Your task to perform on an android device: Go to calendar. Show me events next week Image 0: 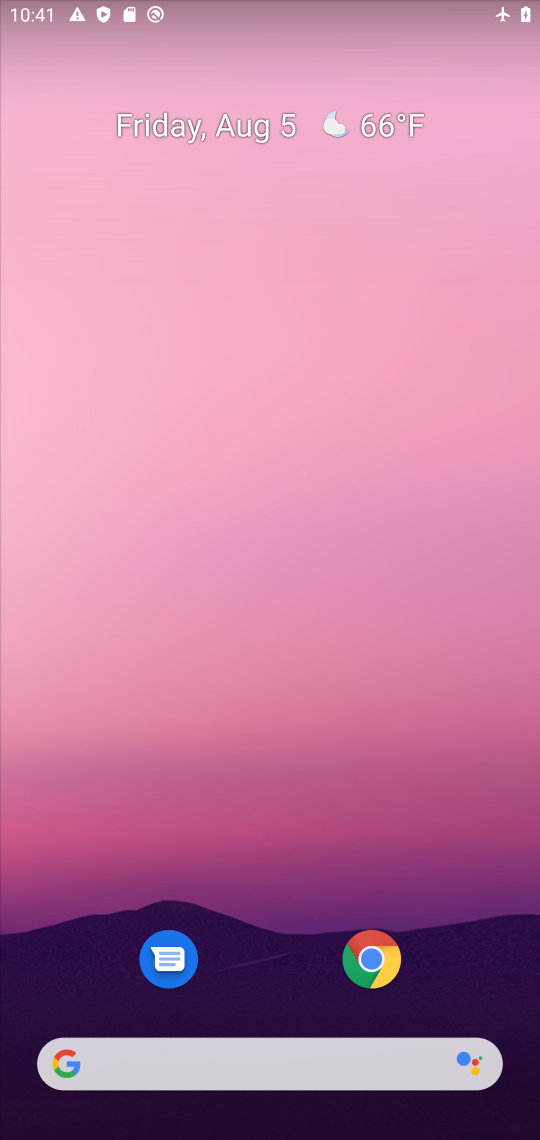
Step 0: drag from (268, 718) to (27, 365)
Your task to perform on an android device: Go to calendar. Show me events next week Image 1: 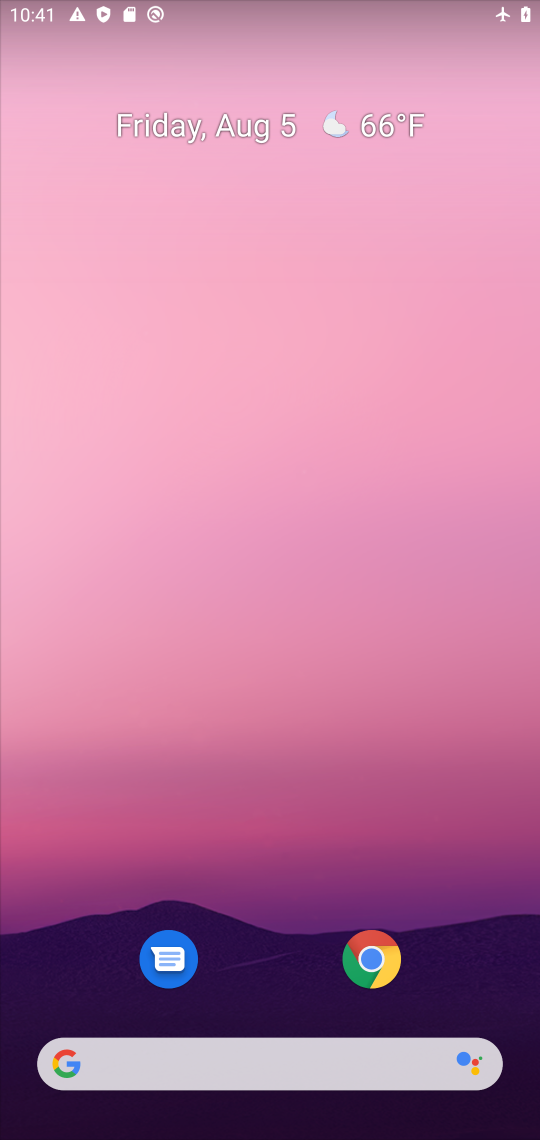
Step 1: drag from (232, 644) to (163, 44)
Your task to perform on an android device: Go to calendar. Show me events next week Image 2: 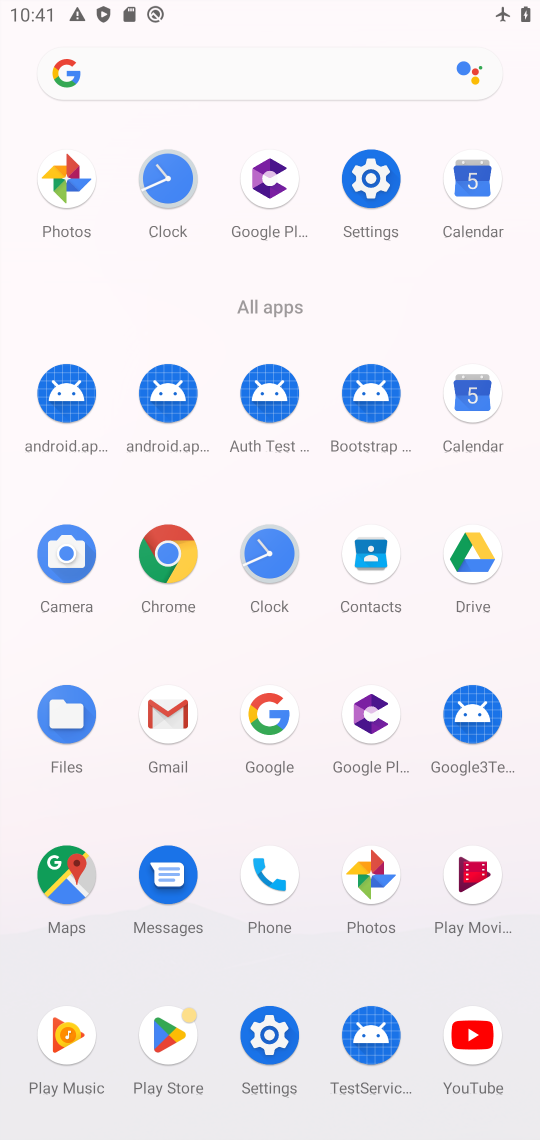
Step 2: click (479, 413)
Your task to perform on an android device: Go to calendar. Show me events next week Image 3: 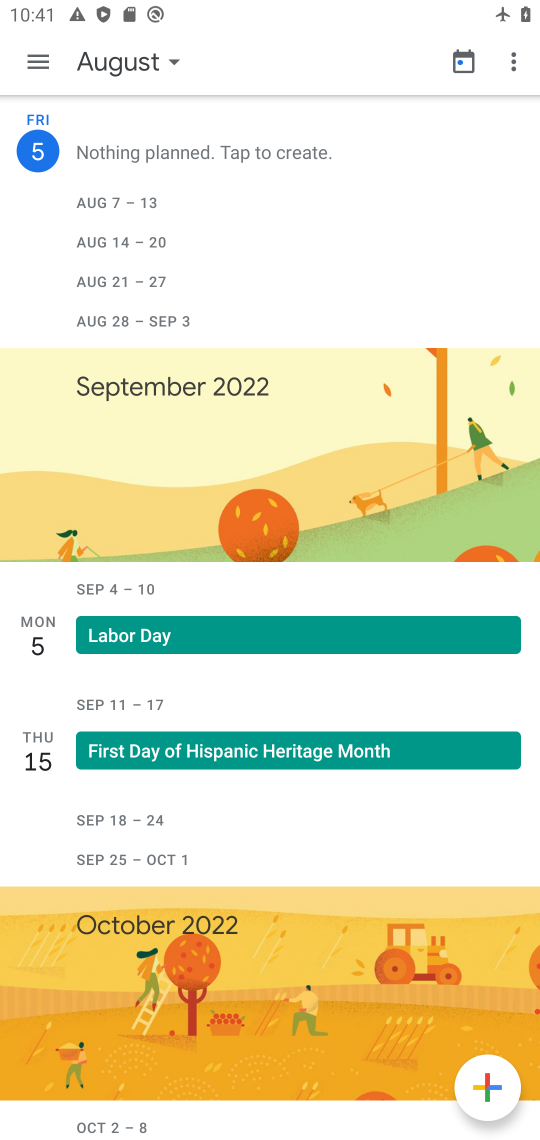
Step 3: click (48, 60)
Your task to perform on an android device: Go to calendar. Show me events next week Image 4: 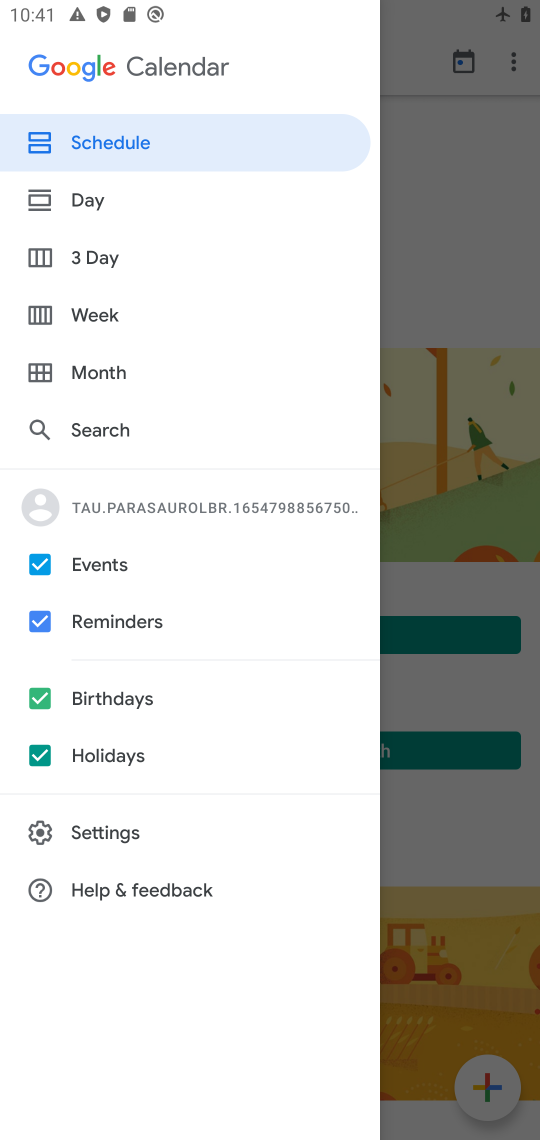
Step 4: click (109, 309)
Your task to perform on an android device: Go to calendar. Show me events next week Image 5: 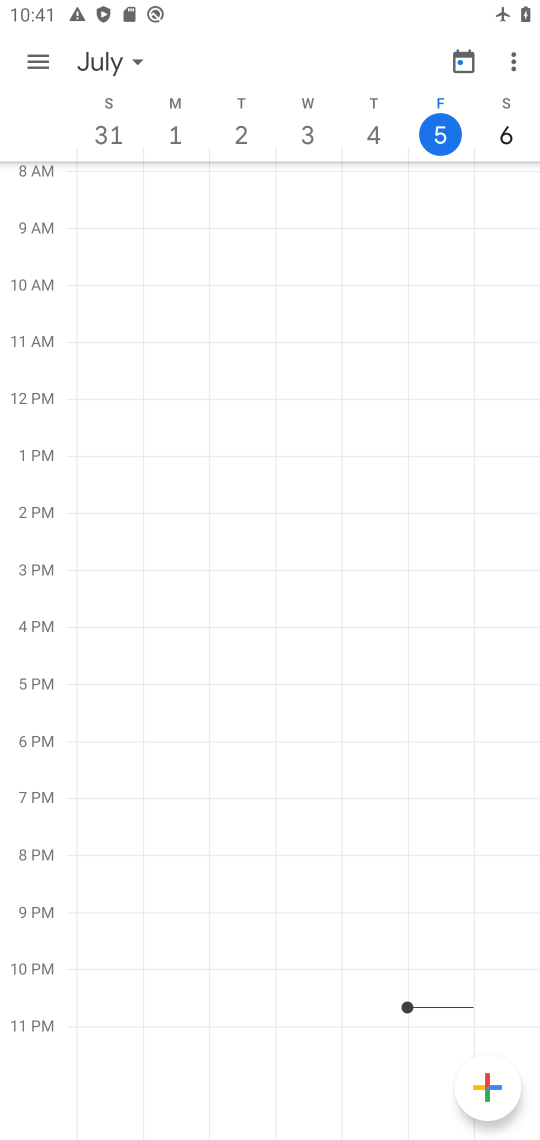
Step 5: task complete